Your task to perform on an android device: find snoozed emails in the gmail app Image 0: 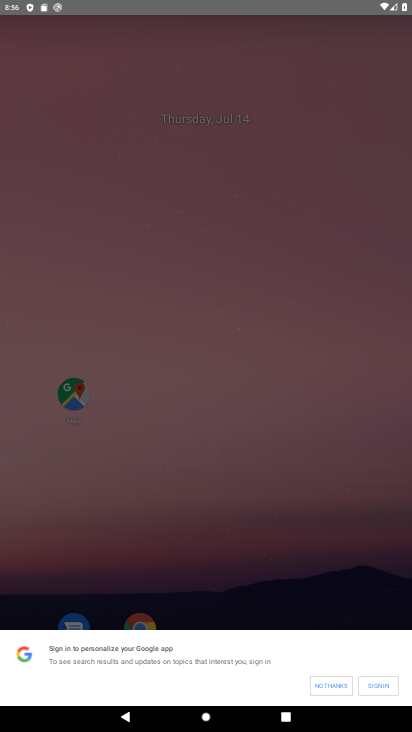
Step 0: press home button
Your task to perform on an android device: find snoozed emails in the gmail app Image 1: 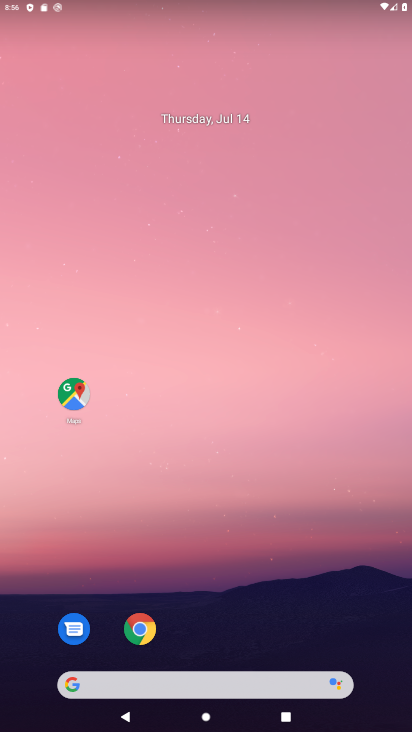
Step 1: drag from (193, 609) to (198, 198)
Your task to perform on an android device: find snoozed emails in the gmail app Image 2: 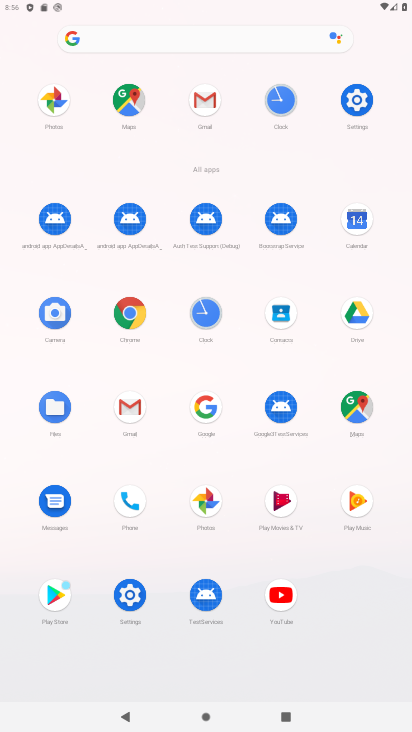
Step 2: click (126, 400)
Your task to perform on an android device: find snoozed emails in the gmail app Image 3: 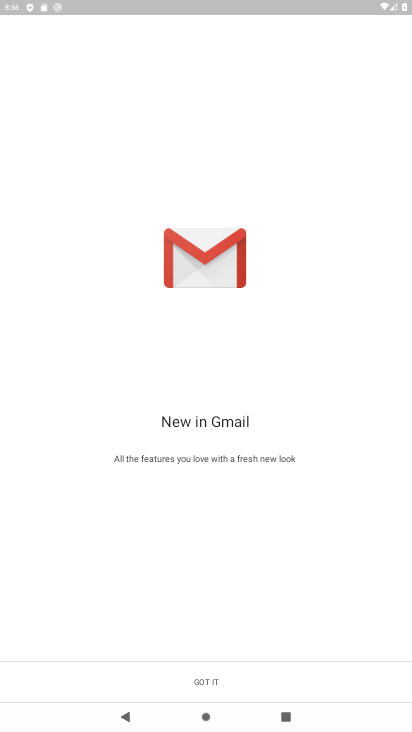
Step 3: click (236, 672)
Your task to perform on an android device: find snoozed emails in the gmail app Image 4: 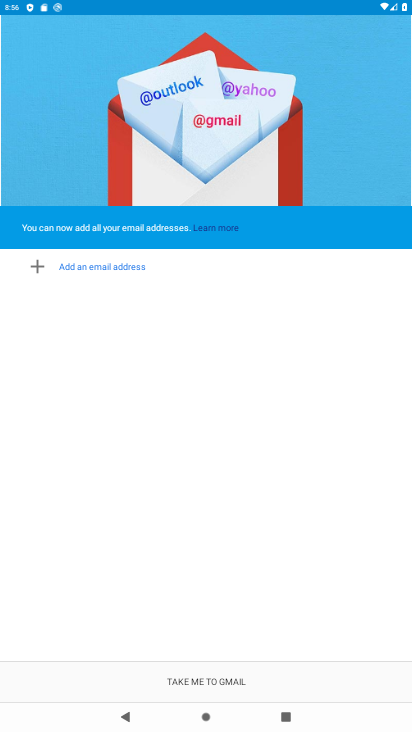
Step 4: click (227, 672)
Your task to perform on an android device: find snoozed emails in the gmail app Image 5: 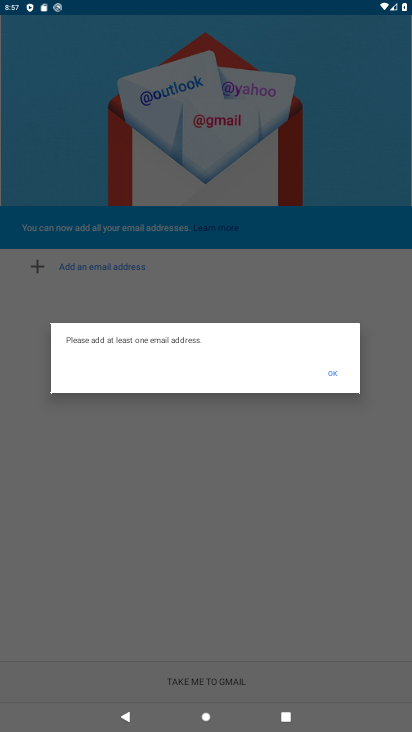
Step 5: click (344, 368)
Your task to perform on an android device: find snoozed emails in the gmail app Image 6: 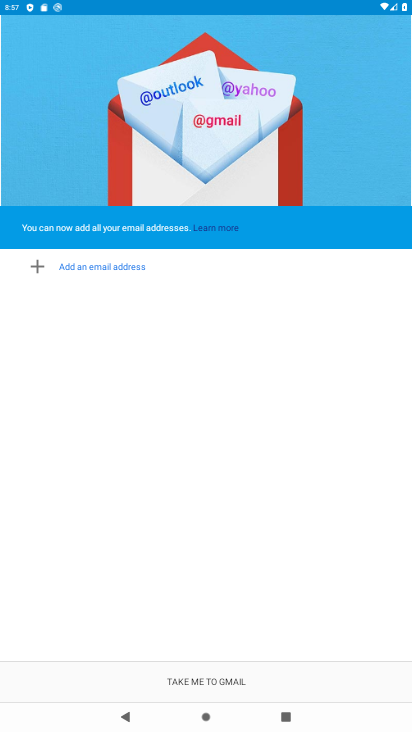
Step 6: click (209, 676)
Your task to perform on an android device: find snoozed emails in the gmail app Image 7: 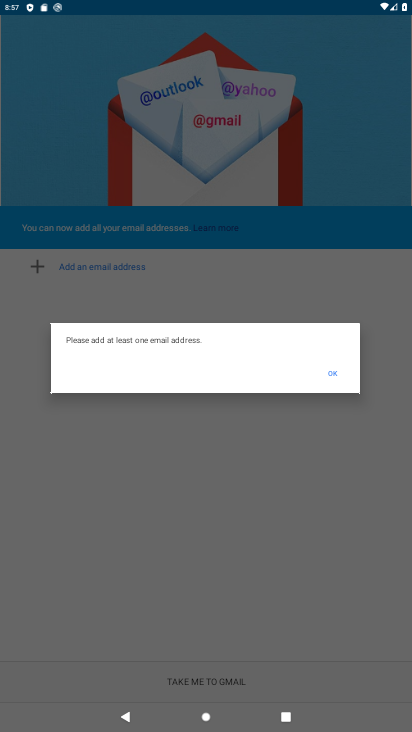
Step 7: task complete